Your task to perform on an android device: Go to sound settings Image 0: 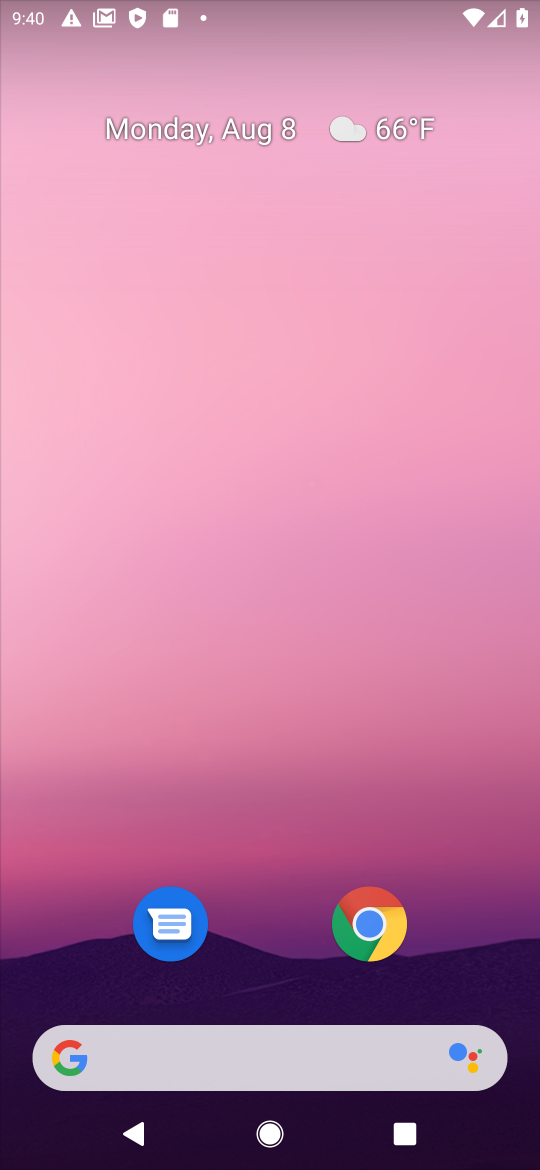
Step 0: drag from (321, 816) to (417, 5)
Your task to perform on an android device: Go to sound settings Image 1: 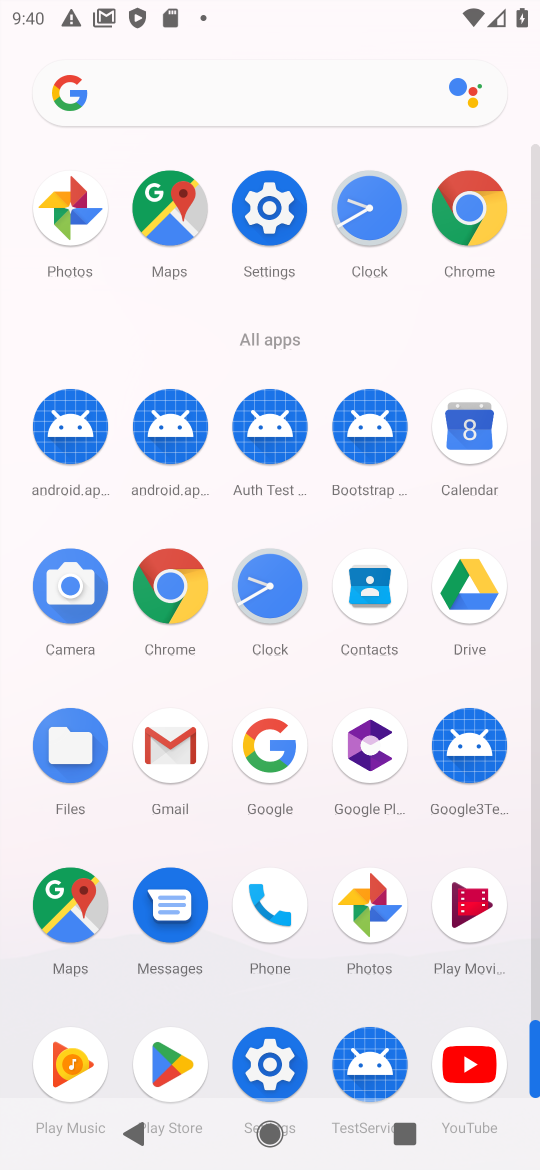
Step 1: click (258, 1079)
Your task to perform on an android device: Go to sound settings Image 2: 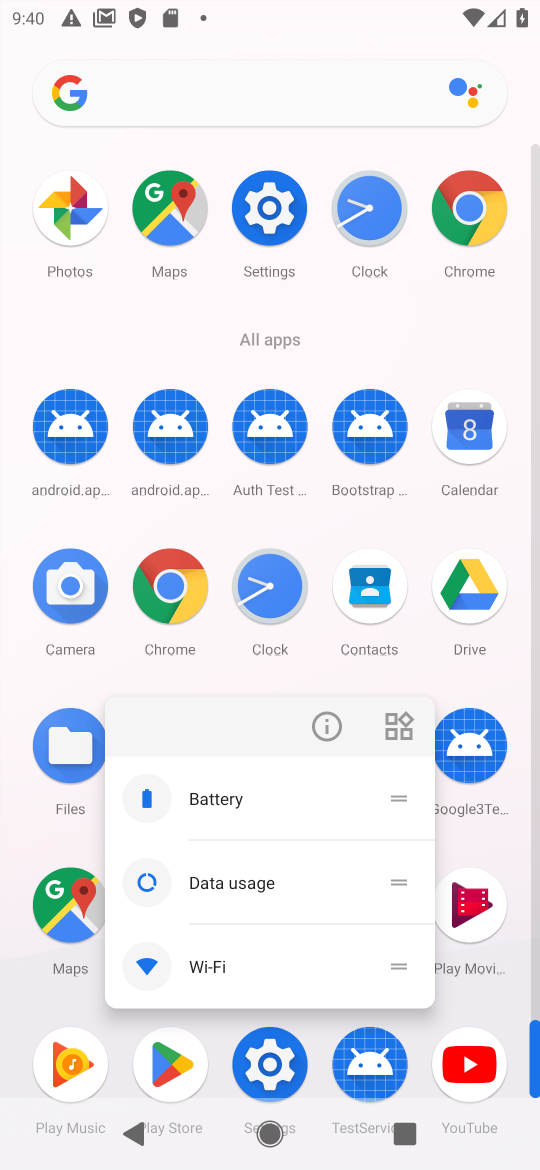
Step 2: click (258, 1054)
Your task to perform on an android device: Go to sound settings Image 3: 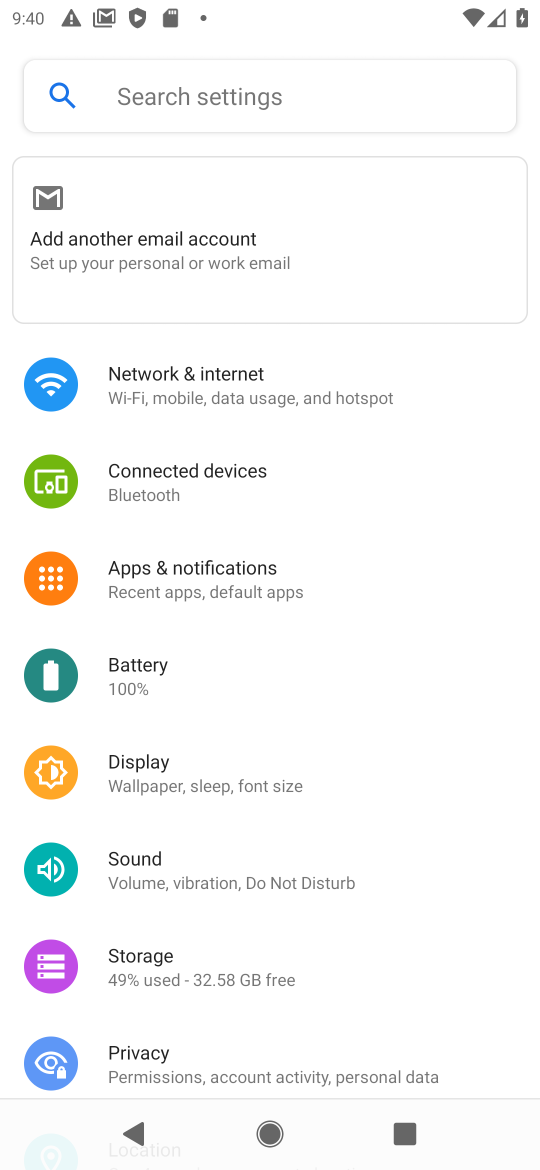
Step 3: click (150, 863)
Your task to perform on an android device: Go to sound settings Image 4: 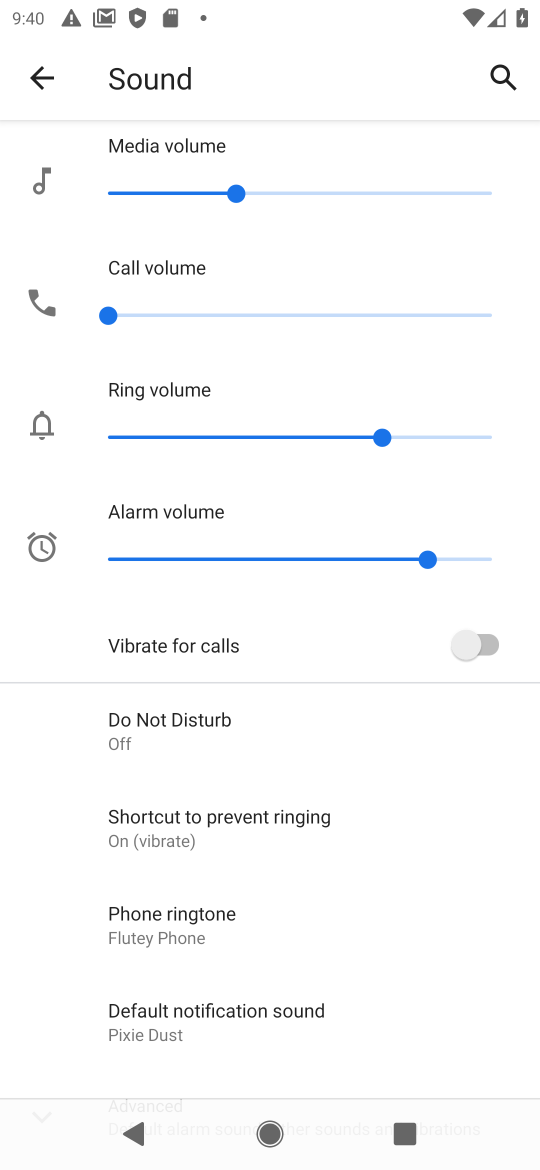
Step 4: task complete